Your task to perform on an android device: change timer sound Image 0: 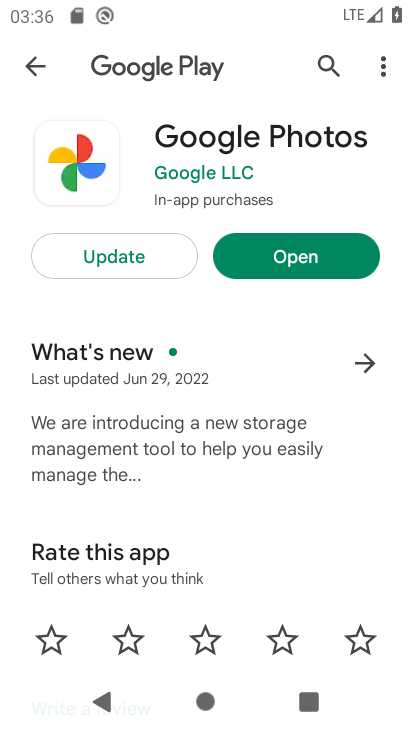
Step 0: press home button
Your task to perform on an android device: change timer sound Image 1: 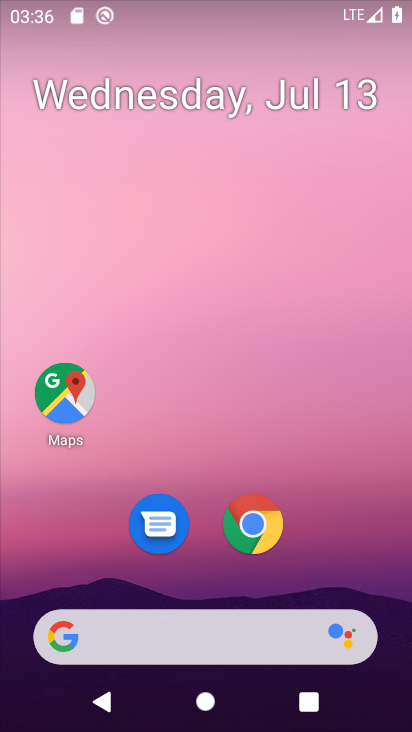
Step 1: drag from (348, 522) to (410, 33)
Your task to perform on an android device: change timer sound Image 2: 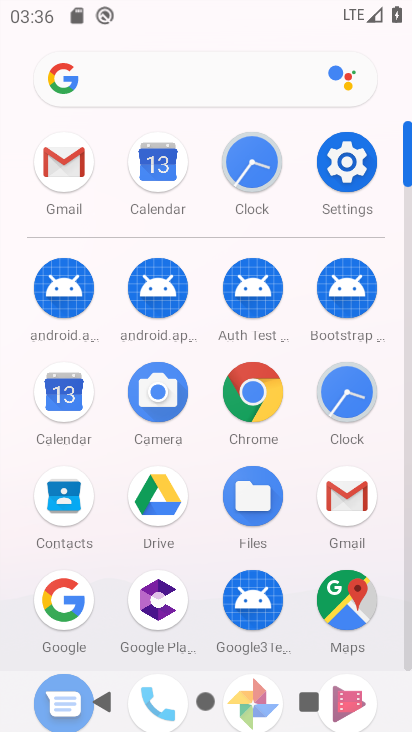
Step 2: click (239, 151)
Your task to perform on an android device: change timer sound Image 3: 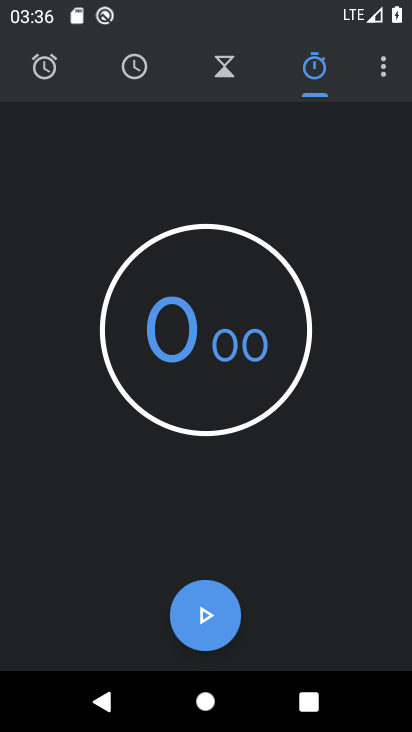
Step 3: click (380, 68)
Your task to perform on an android device: change timer sound Image 4: 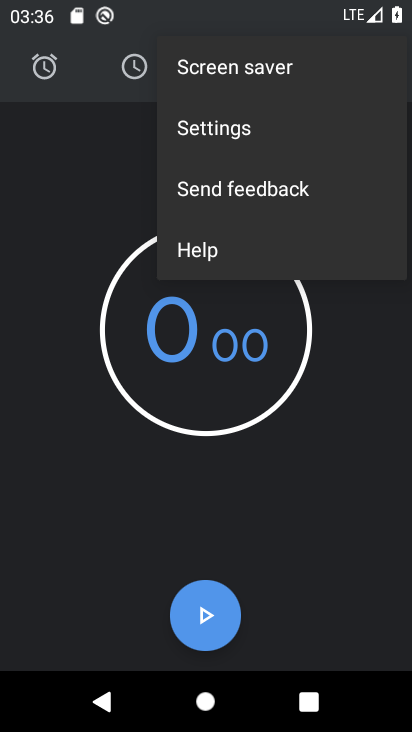
Step 4: click (252, 124)
Your task to perform on an android device: change timer sound Image 5: 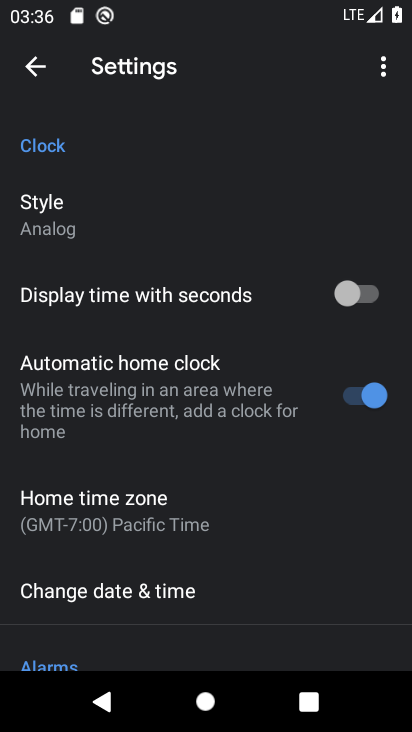
Step 5: drag from (264, 581) to (310, 12)
Your task to perform on an android device: change timer sound Image 6: 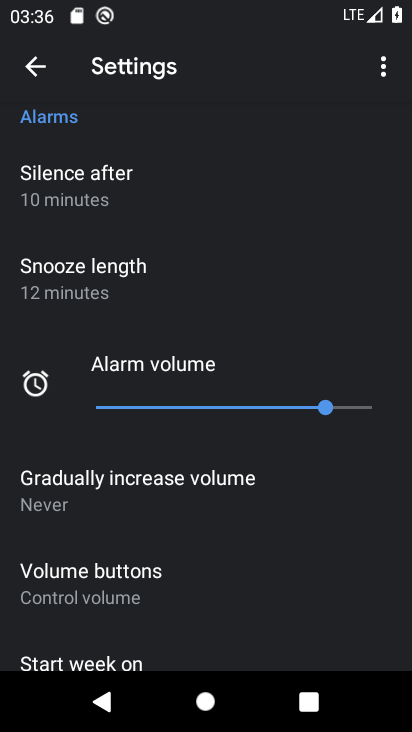
Step 6: drag from (225, 629) to (266, 0)
Your task to perform on an android device: change timer sound Image 7: 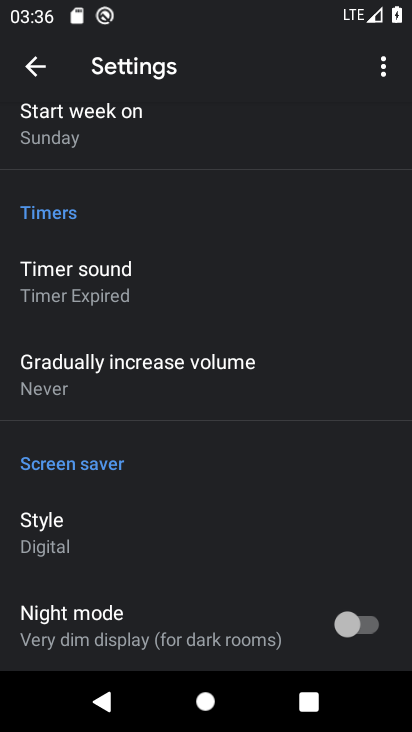
Step 7: drag from (199, 541) to (233, 49)
Your task to perform on an android device: change timer sound Image 8: 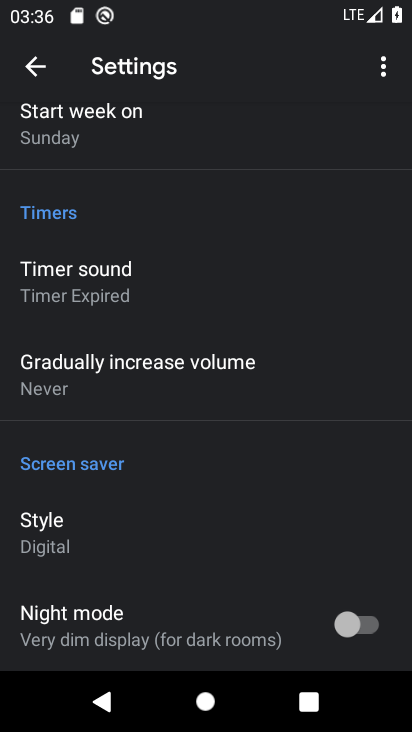
Step 8: click (131, 287)
Your task to perform on an android device: change timer sound Image 9: 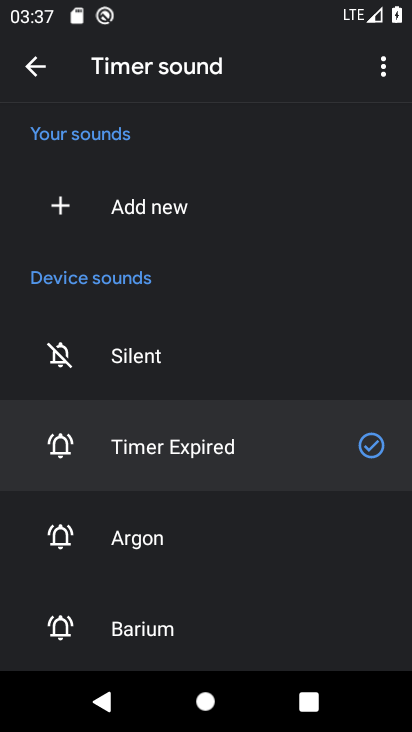
Step 9: click (139, 530)
Your task to perform on an android device: change timer sound Image 10: 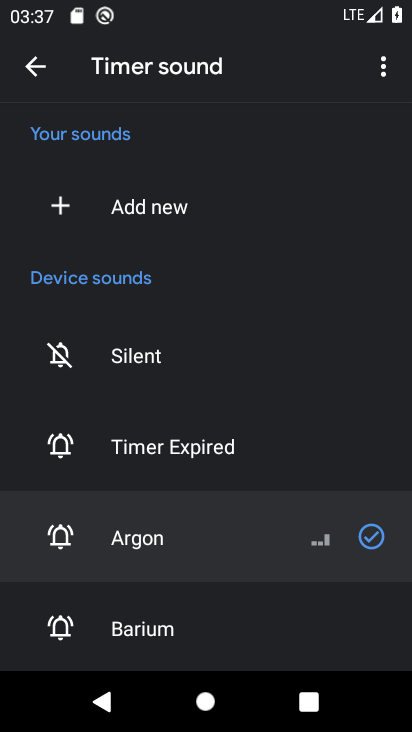
Step 10: task complete